Your task to perform on an android device: change notification settings in the gmail app Image 0: 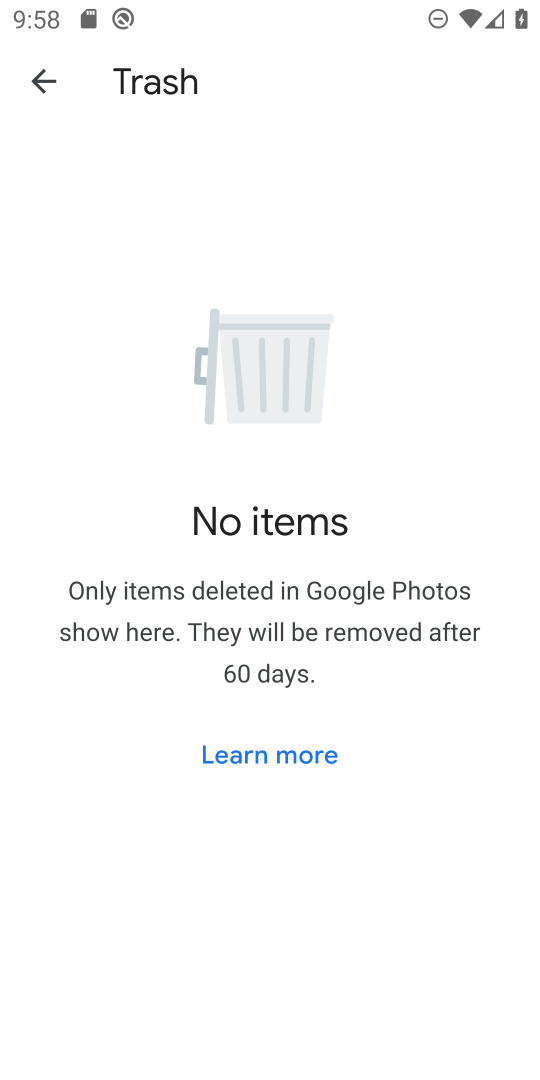
Step 0: press home button
Your task to perform on an android device: change notification settings in the gmail app Image 1: 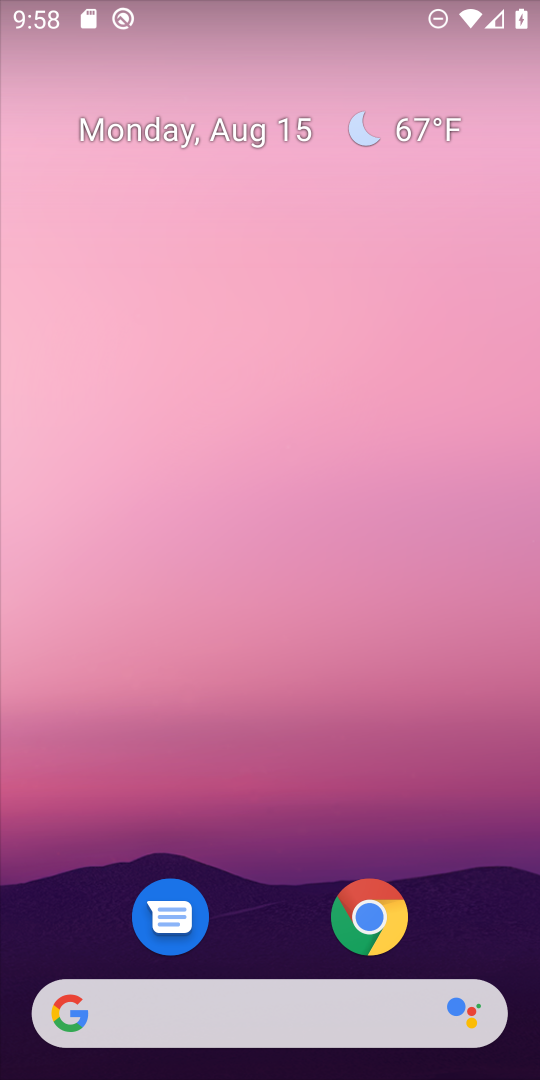
Step 1: drag from (267, 831) to (305, 0)
Your task to perform on an android device: change notification settings in the gmail app Image 2: 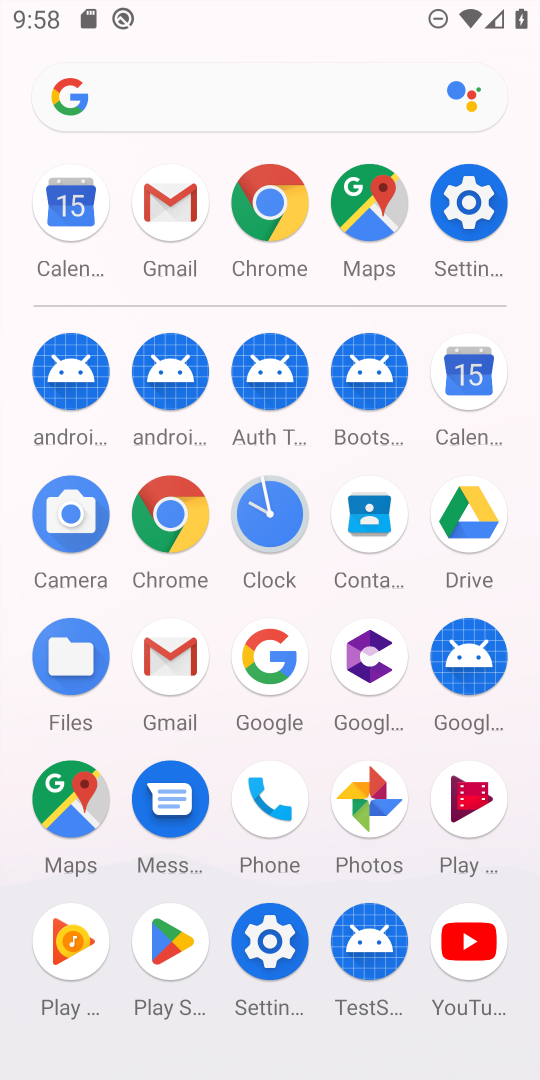
Step 2: click (171, 198)
Your task to perform on an android device: change notification settings in the gmail app Image 3: 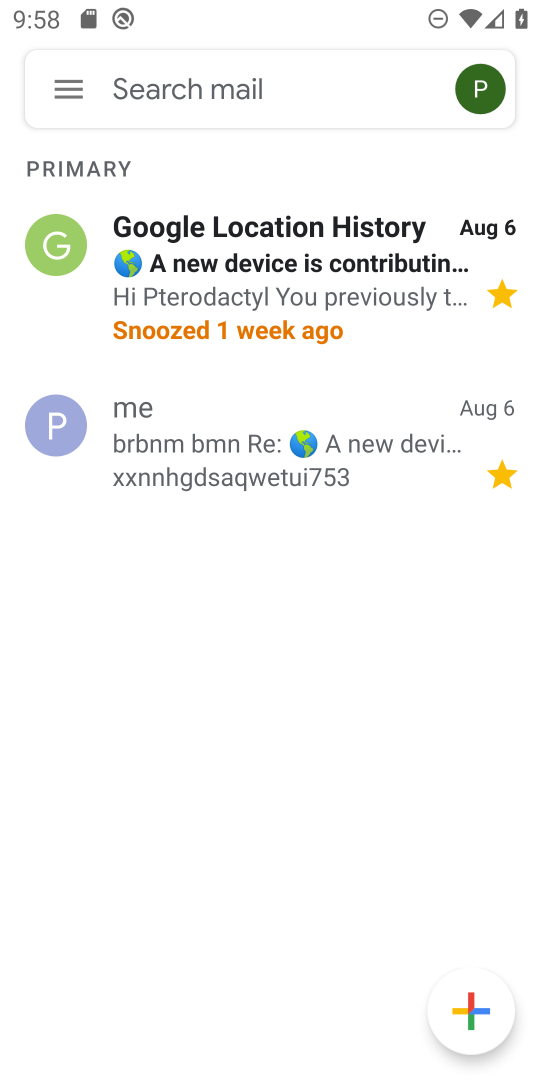
Step 3: click (62, 79)
Your task to perform on an android device: change notification settings in the gmail app Image 4: 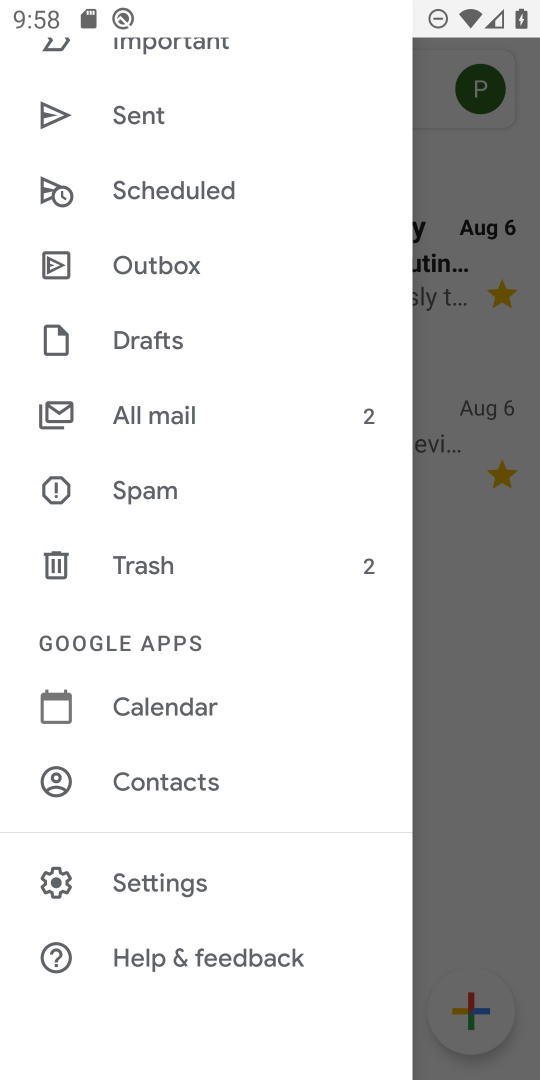
Step 4: click (195, 884)
Your task to perform on an android device: change notification settings in the gmail app Image 5: 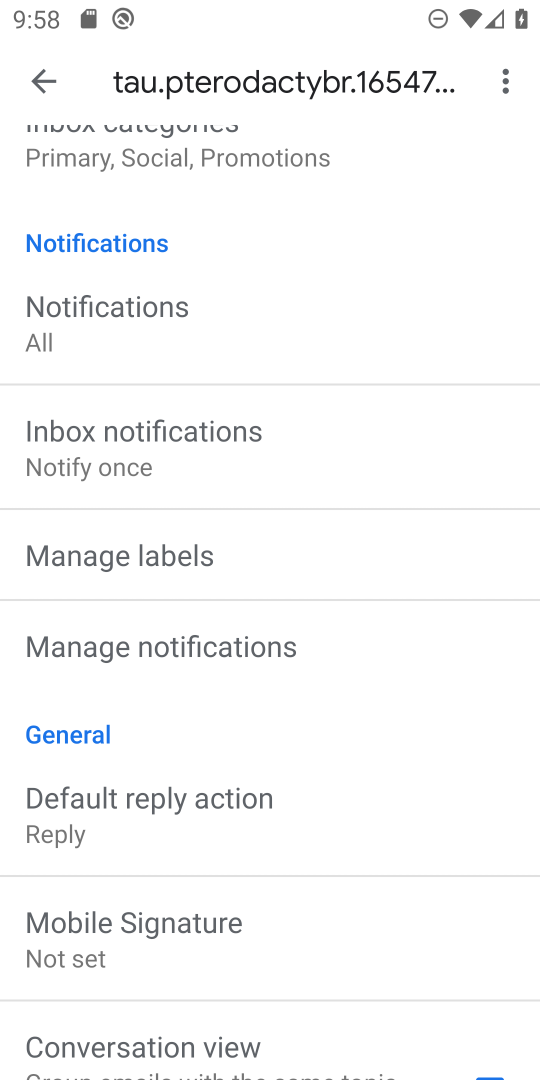
Step 5: click (165, 638)
Your task to perform on an android device: change notification settings in the gmail app Image 6: 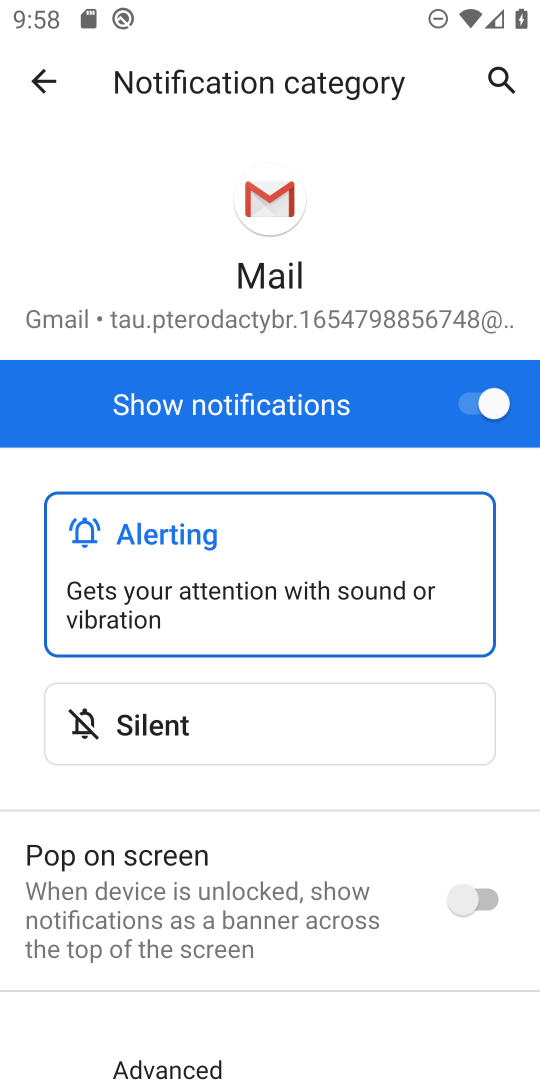
Step 6: click (482, 413)
Your task to perform on an android device: change notification settings in the gmail app Image 7: 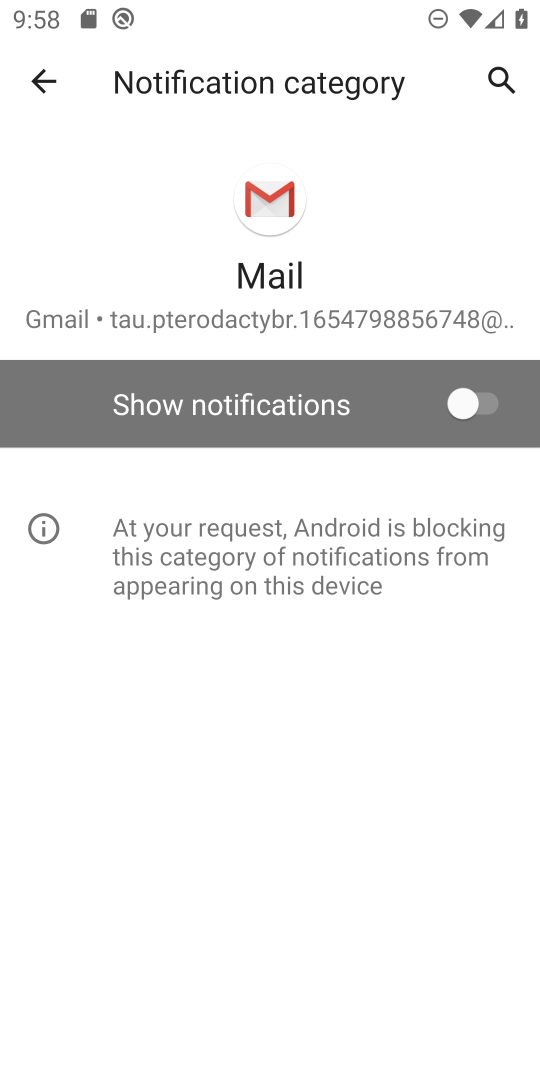
Step 7: task complete